Your task to perform on an android device: toggle pop-ups in chrome Image 0: 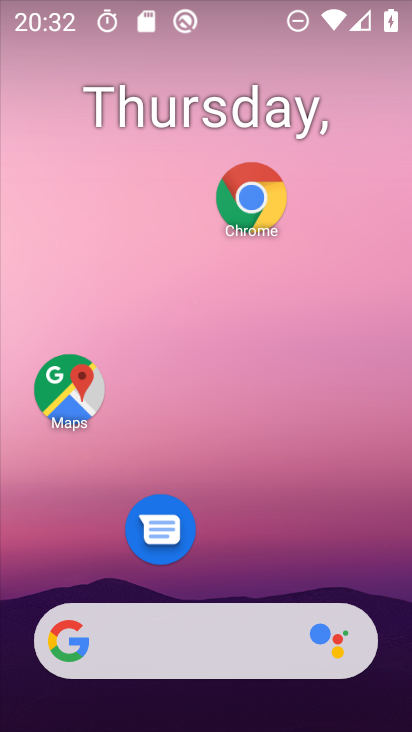
Step 0: drag from (254, 566) to (263, 122)
Your task to perform on an android device: toggle pop-ups in chrome Image 1: 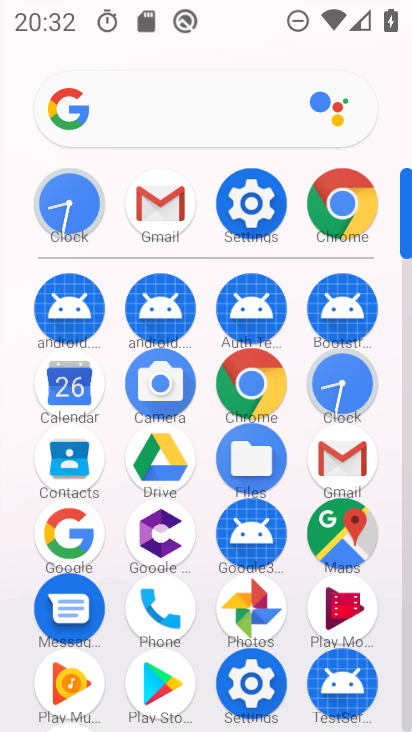
Step 1: click (242, 207)
Your task to perform on an android device: toggle pop-ups in chrome Image 2: 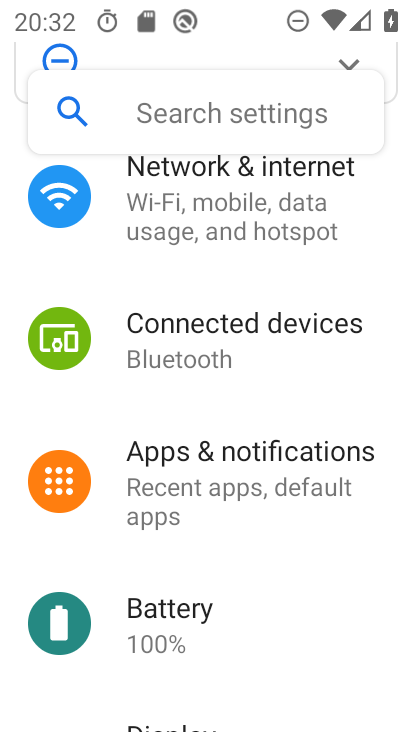
Step 2: click (186, 617)
Your task to perform on an android device: toggle pop-ups in chrome Image 3: 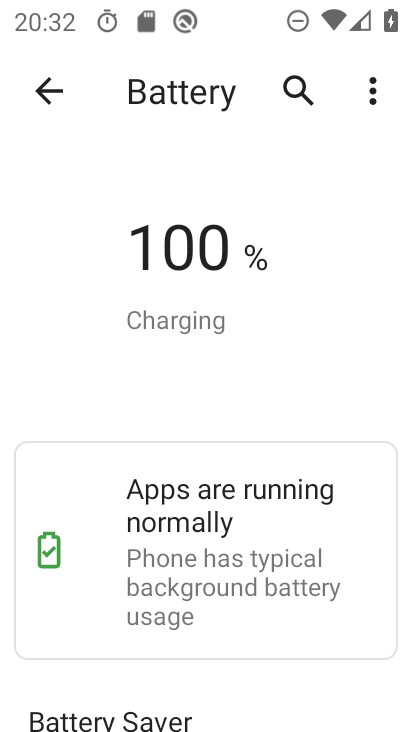
Step 3: task complete